Your task to perform on an android device: Open Chrome and go to the settings page Image 0: 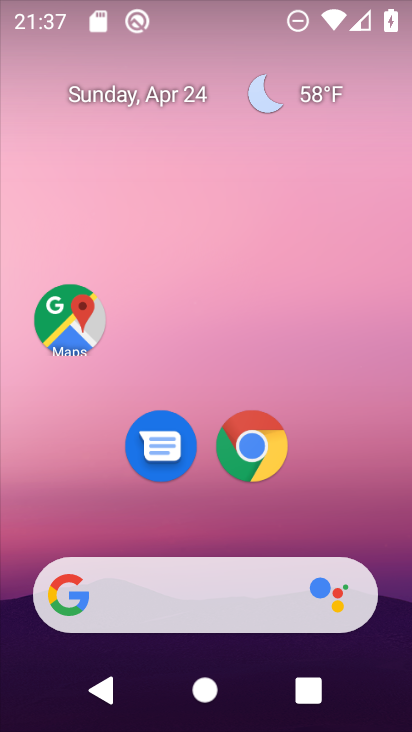
Step 0: press home button
Your task to perform on an android device: Open Chrome and go to the settings page Image 1: 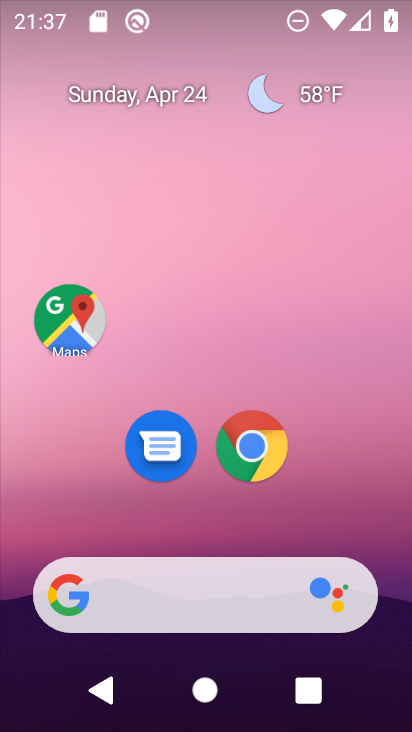
Step 1: drag from (190, 596) to (336, 99)
Your task to perform on an android device: Open Chrome and go to the settings page Image 2: 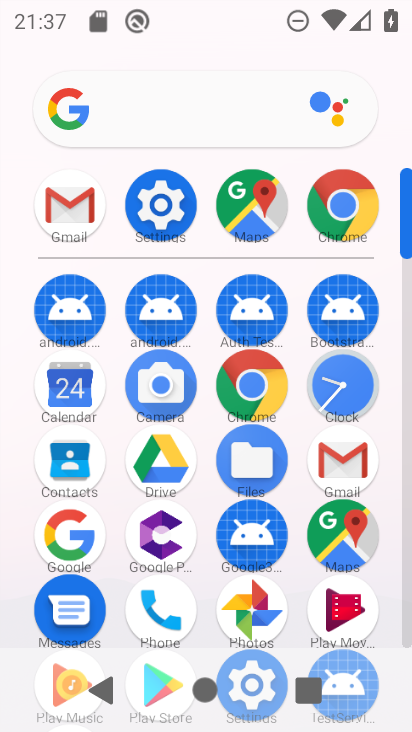
Step 2: click (335, 213)
Your task to perform on an android device: Open Chrome and go to the settings page Image 3: 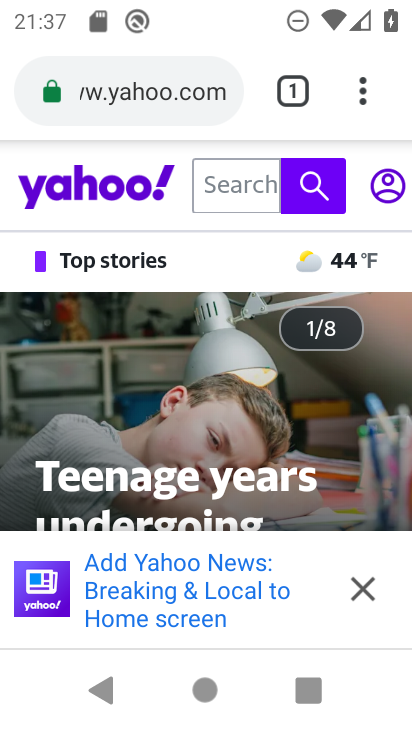
Step 3: click (352, 107)
Your task to perform on an android device: Open Chrome and go to the settings page Image 4: 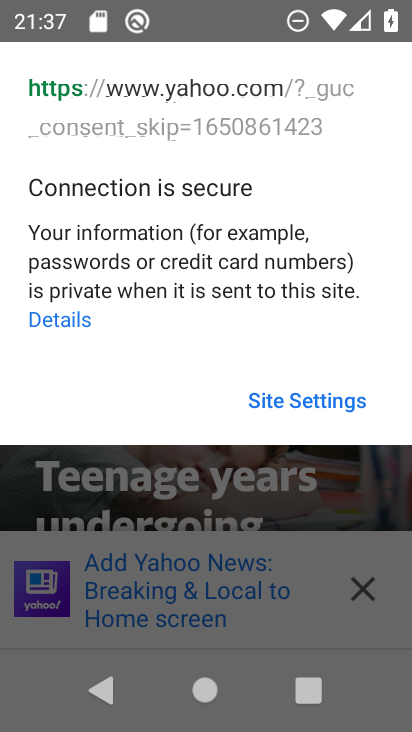
Step 4: task complete